Your task to perform on an android device: Go to Reddit.com Image 0: 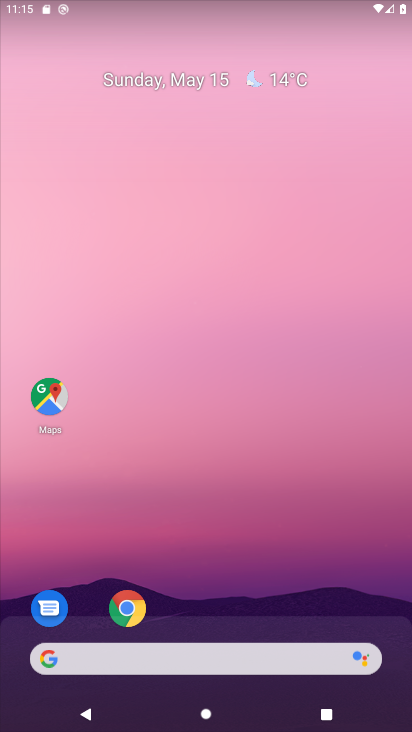
Step 0: click (232, 684)
Your task to perform on an android device: Go to Reddit.com Image 1: 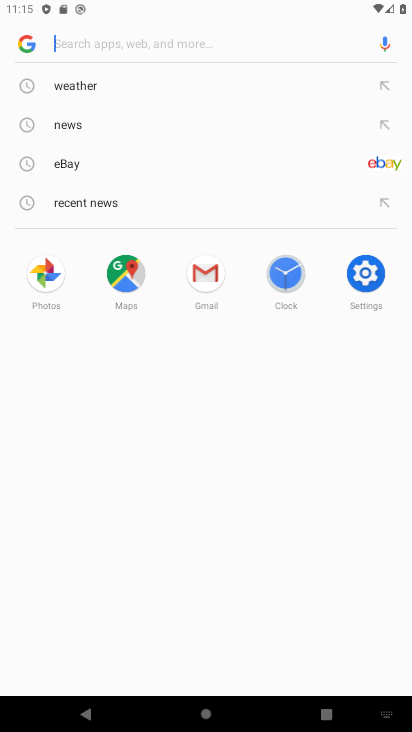
Step 1: type "Reddit.com"
Your task to perform on an android device: Go to Reddit.com Image 2: 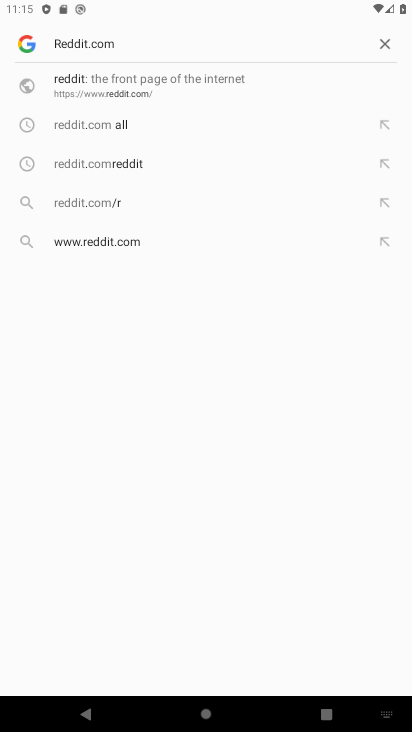
Step 2: click (271, 88)
Your task to perform on an android device: Go to Reddit.com Image 3: 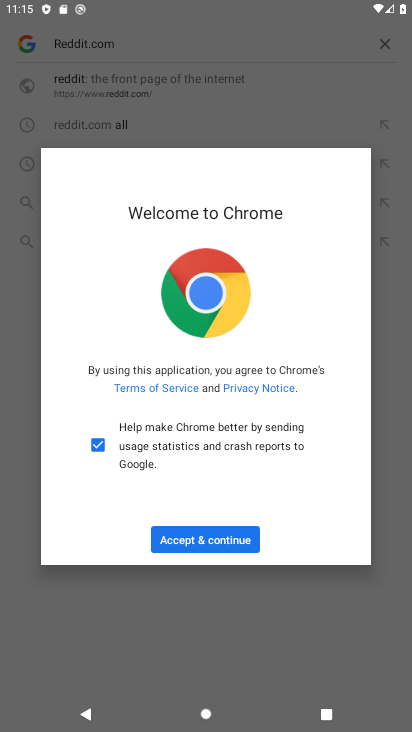
Step 3: click (201, 541)
Your task to perform on an android device: Go to Reddit.com Image 4: 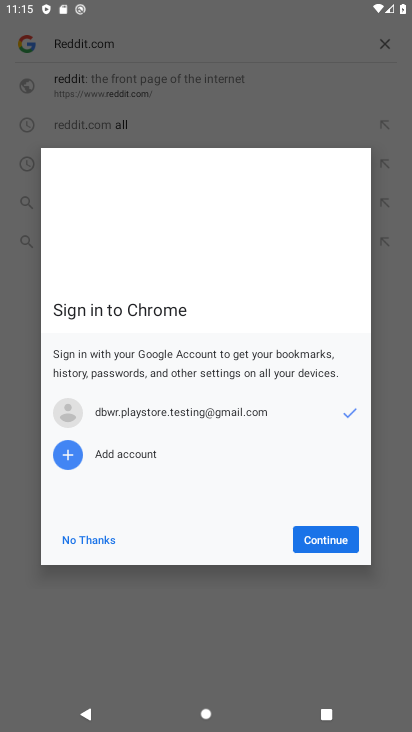
Step 4: click (349, 539)
Your task to perform on an android device: Go to Reddit.com Image 5: 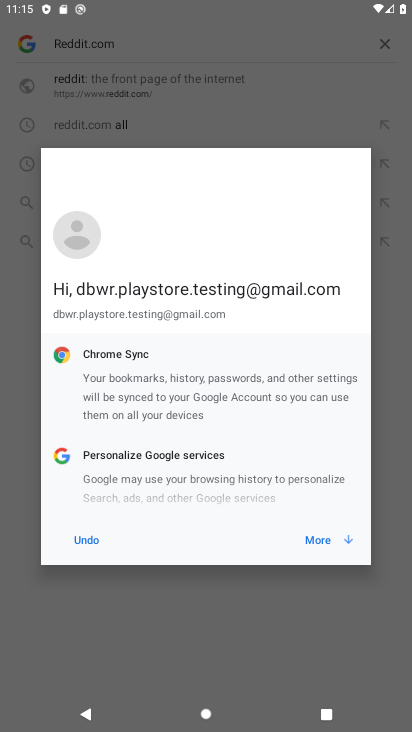
Step 5: click (345, 536)
Your task to perform on an android device: Go to Reddit.com Image 6: 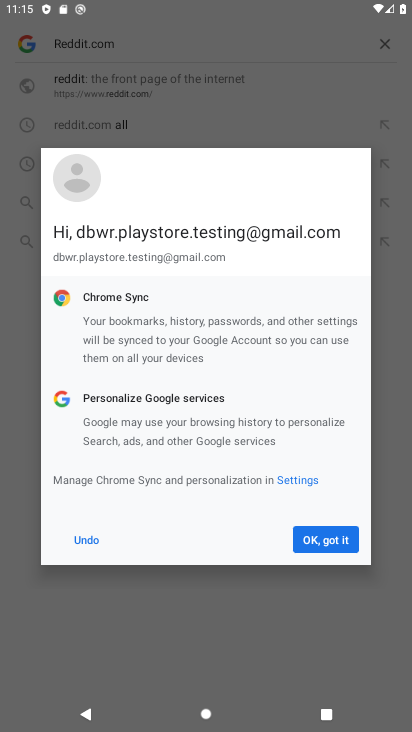
Step 6: click (333, 546)
Your task to perform on an android device: Go to Reddit.com Image 7: 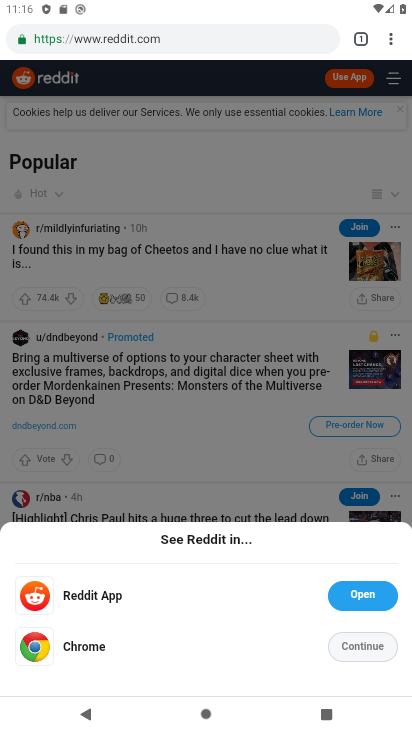
Step 7: task complete